Your task to perform on an android device: Show me the alarms in the clock app Image 0: 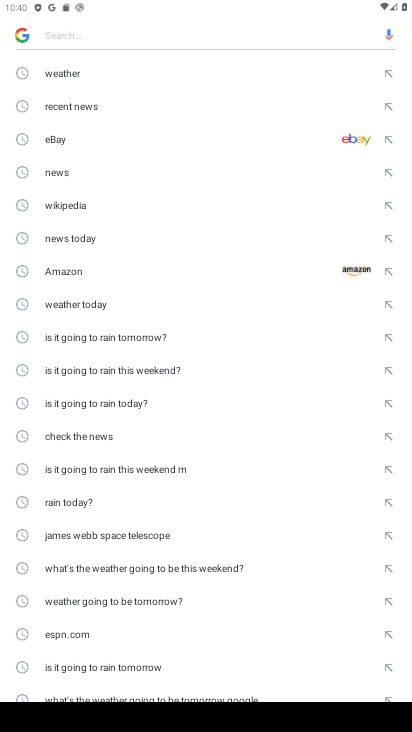
Step 0: press home button
Your task to perform on an android device: Show me the alarms in the clock app Image 1: 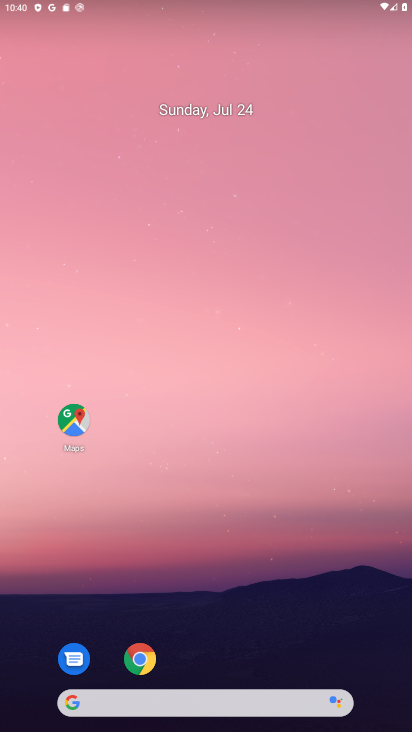
Step 1: drag from (168, 626) to (172, 259)
Your task to perform on an android device: Show me the alarms in the clock app Image 2: 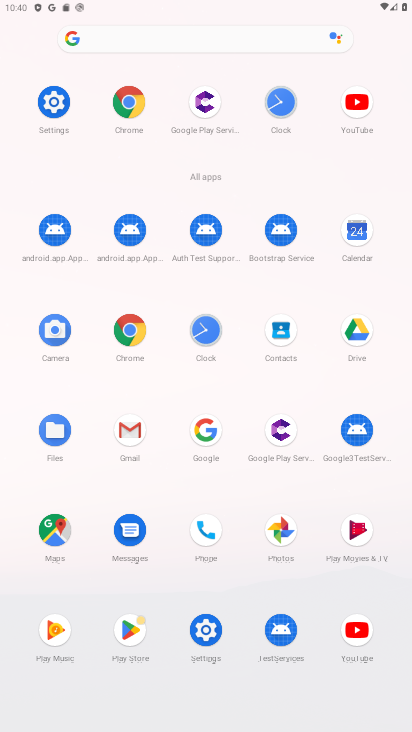
Step 2: click (195, 330)
Your task to perform on an android device: Show me the alarms in the clock app Image 3: 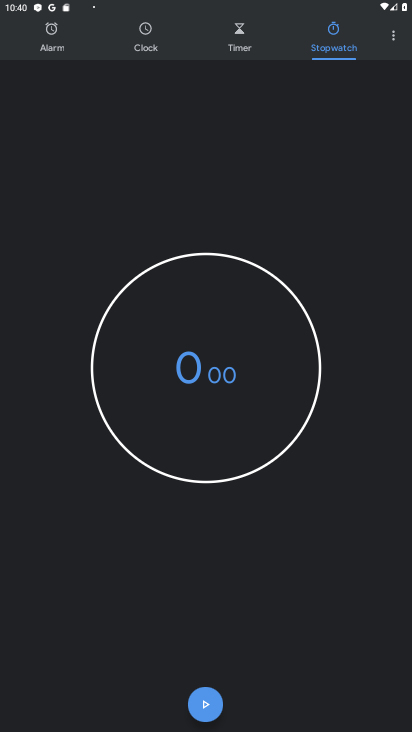
Step 3: click (35, 26)
Your task to perform on an android device: Show me the alarms in the clock app Image 4: 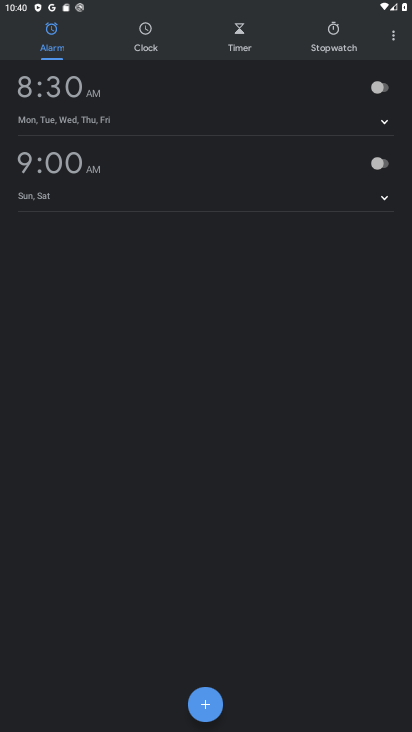
Step 4: task complete